Your task to perform on an android device: open app "Indeed Job Search" Image 0: 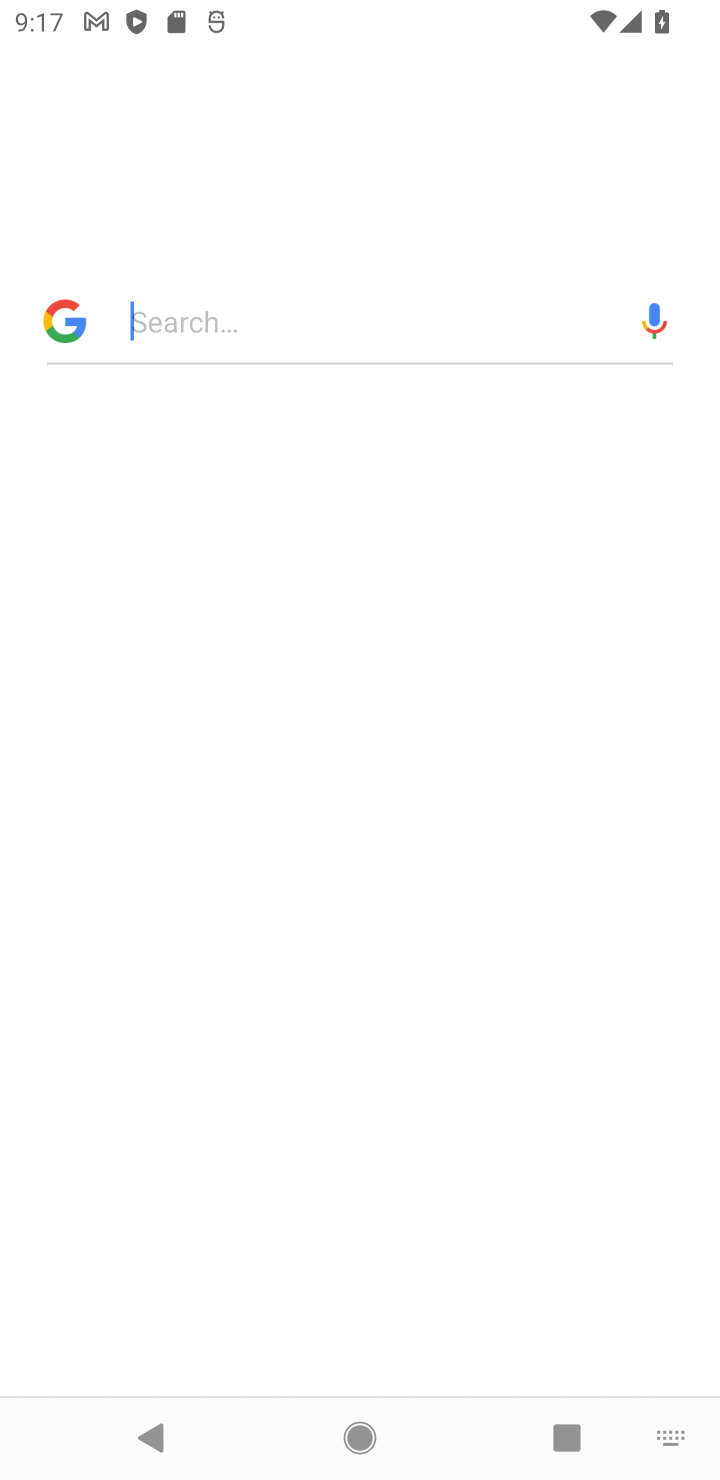
Step 0: press back button
Your task to perform on an android device: open app "Indeed Job Search" Image 1: 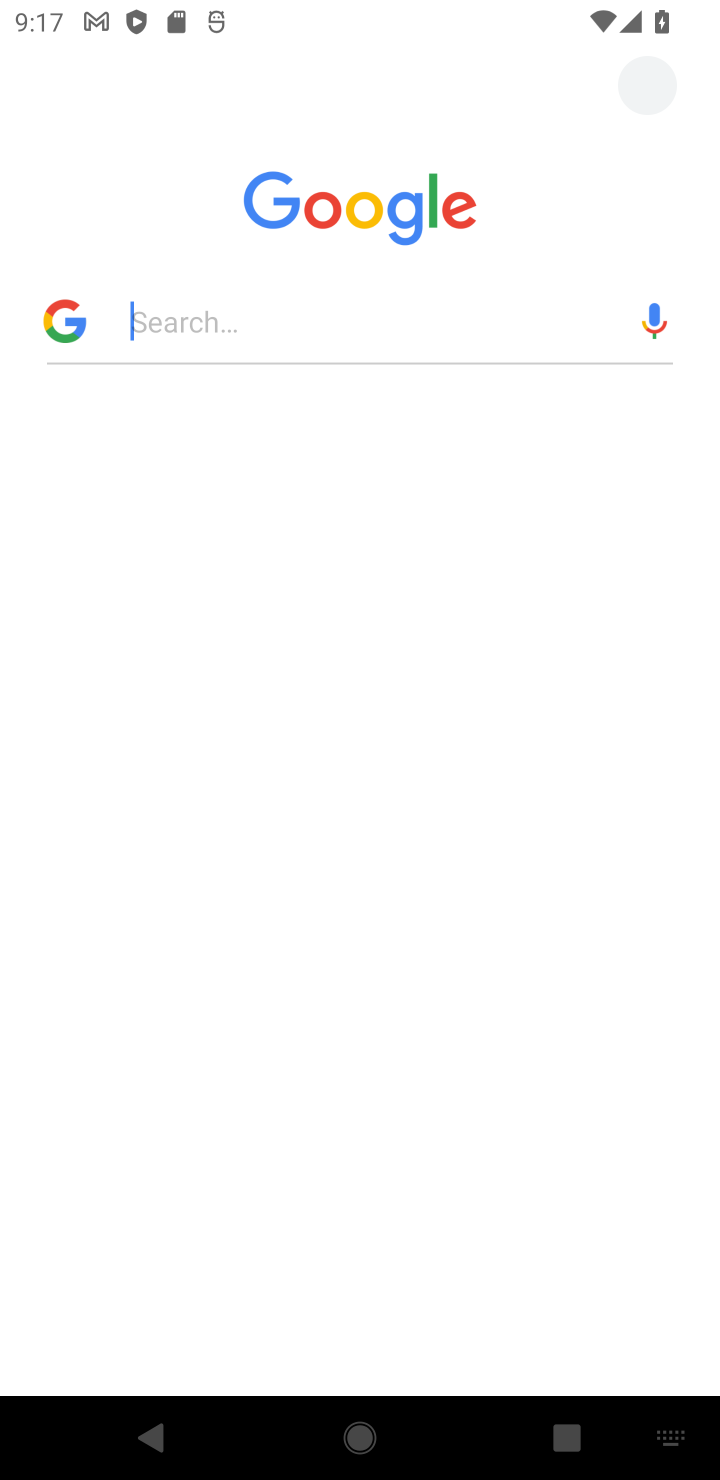
Step 1: press home button
Your task to perform on an android device: open app "Indeed Job Search" Image 2: 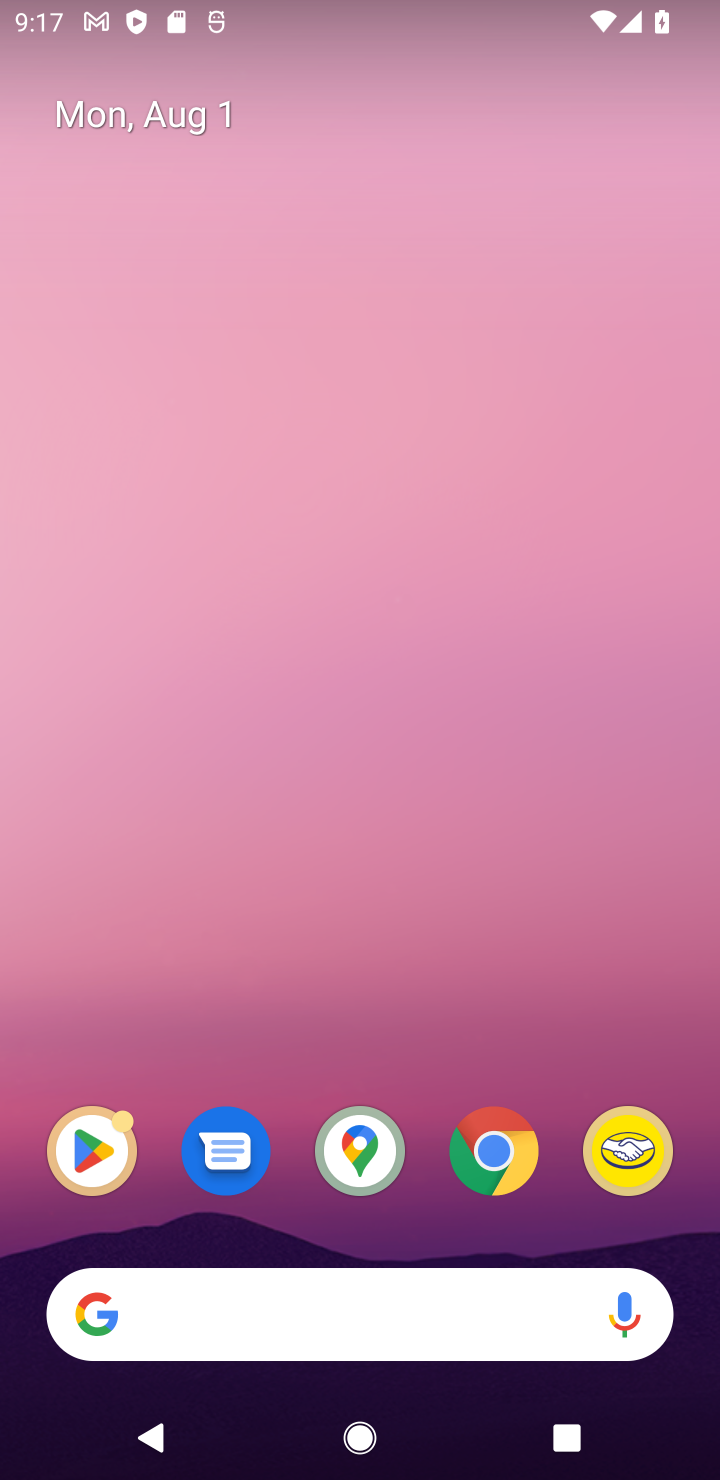
Step 2: drag from (414, 1172) to (256, 559)
Your task to perform on an android device: open app "Indeed Job Search" Image 3: 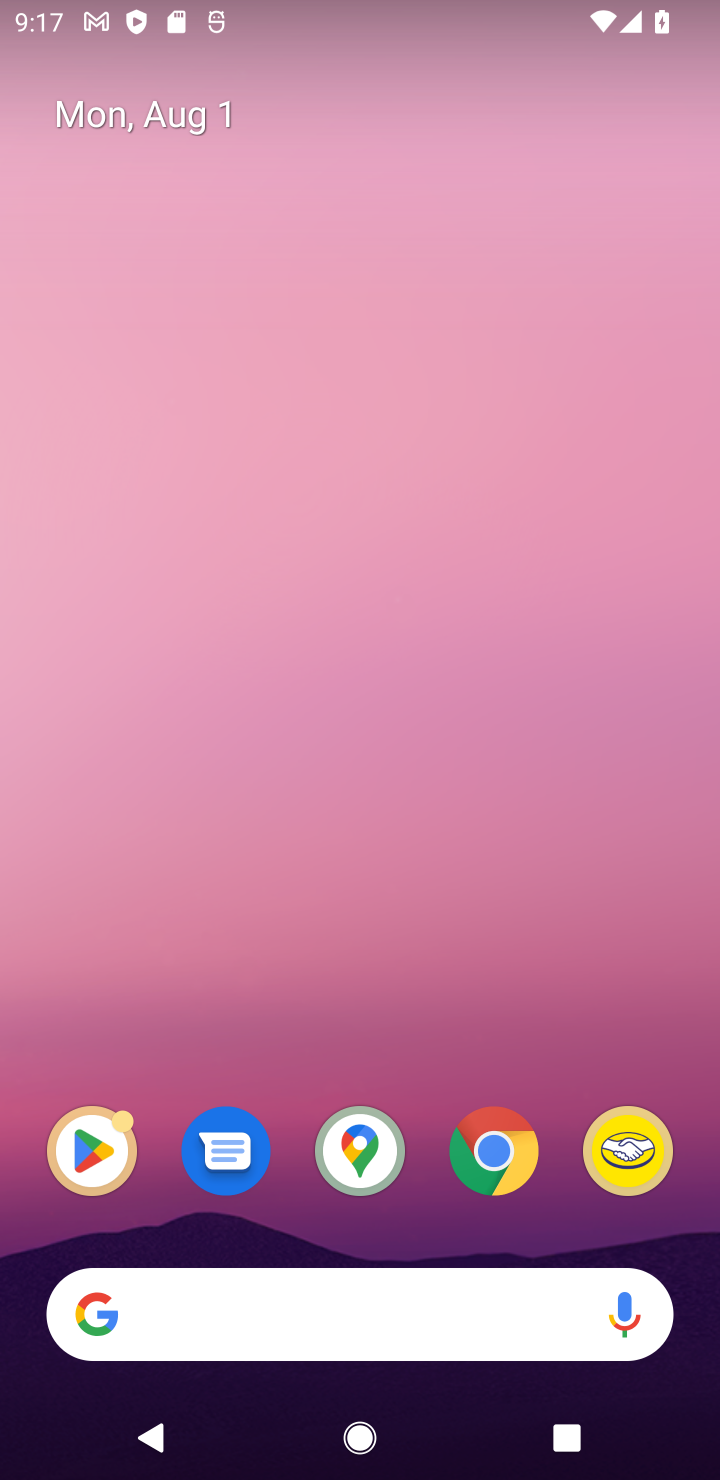
Step 3: click (311, 682)
Your task to perform on an android device: open app "Indeed Job Search" Image 4: 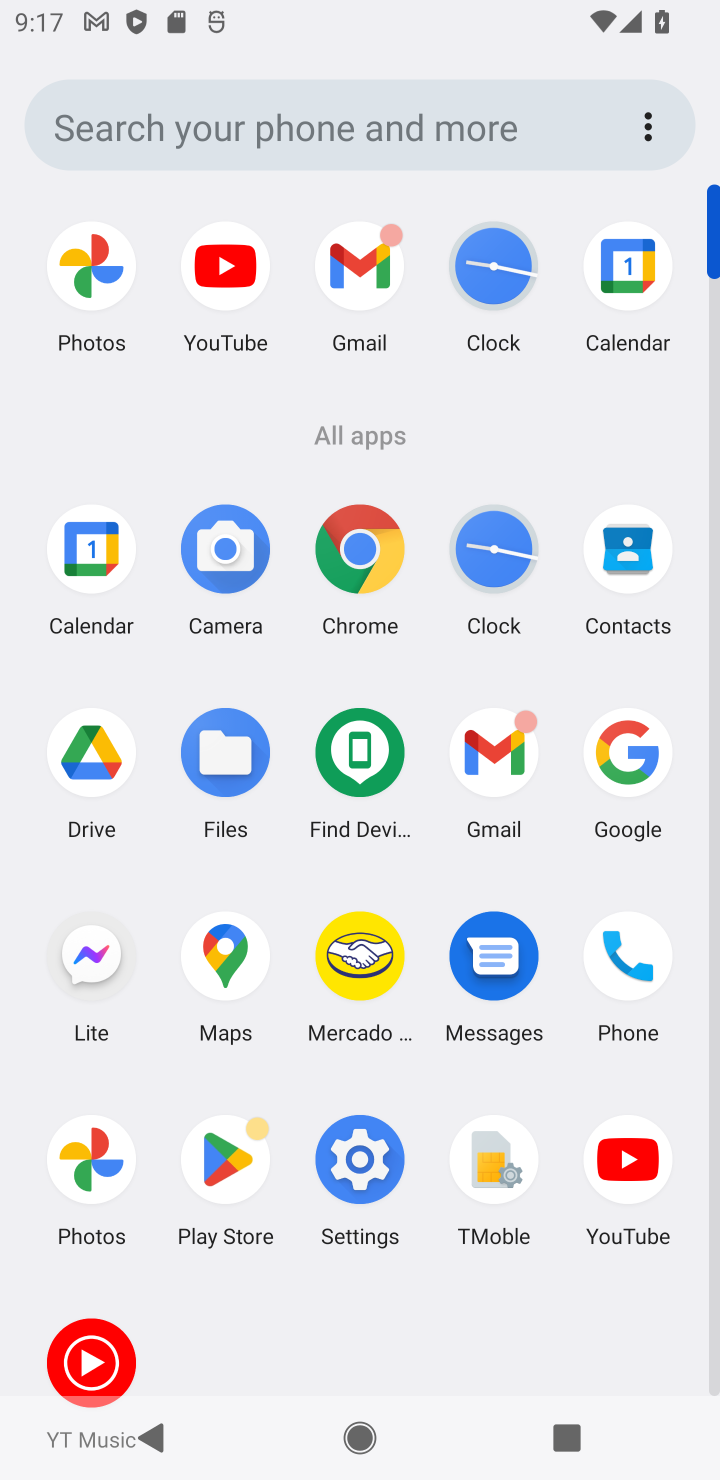
Step 4: drag from (404, 1311) to (319, 527)
Your task to perform on an android device: open app "Indeed Job Search" Image 5: 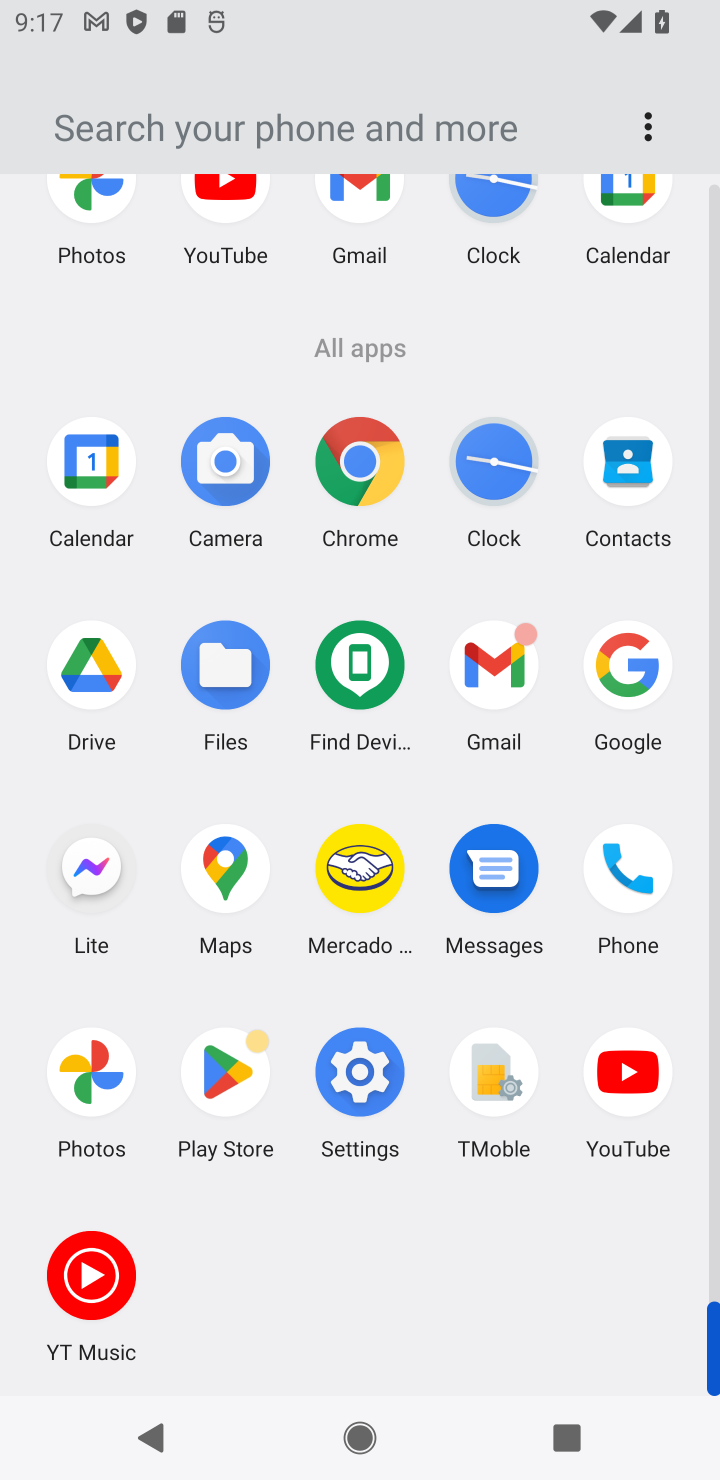
Step 5: click (228, 1081)
Your task to perform on an android device: open app "Indeed Job Search" Image 6: 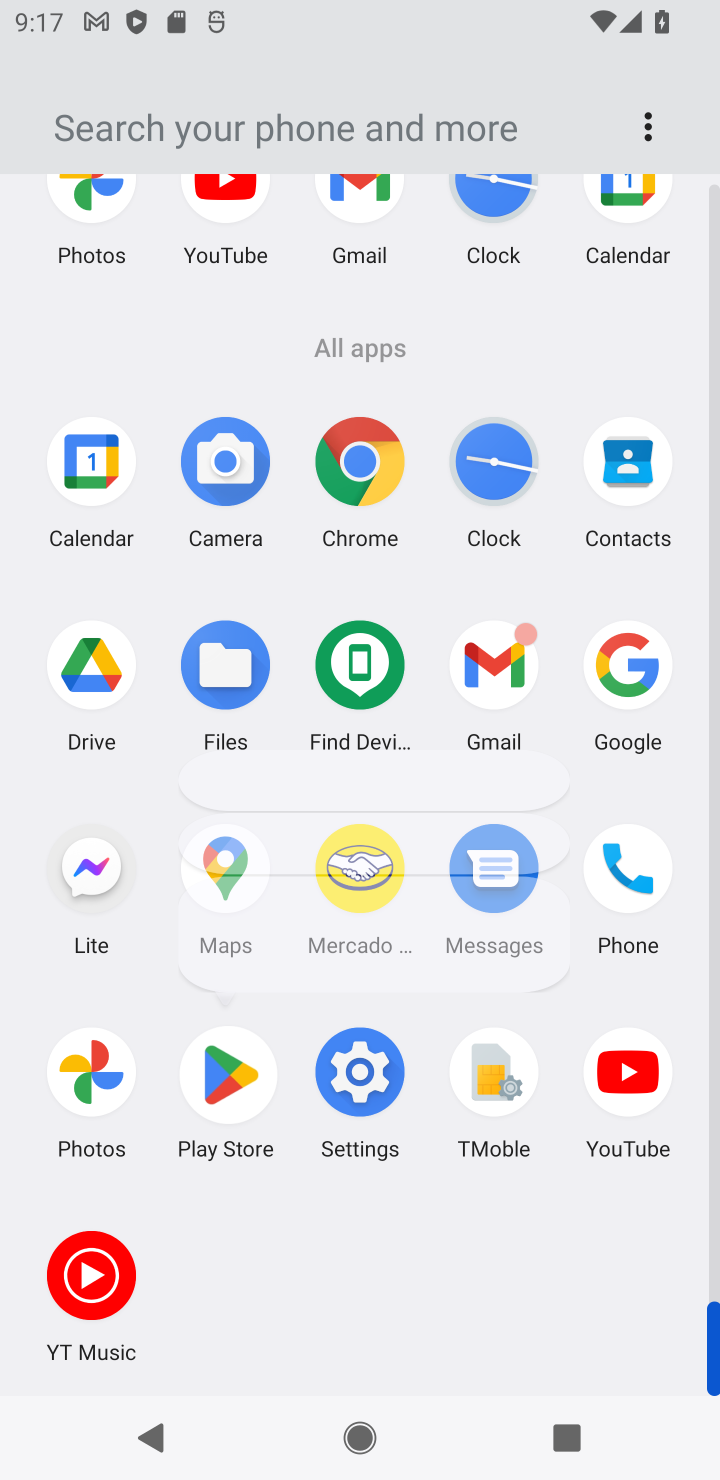
Step 6: click (229, 1081)
Your task to perform on an android device: open app "Indeed Job Search" Image 7: 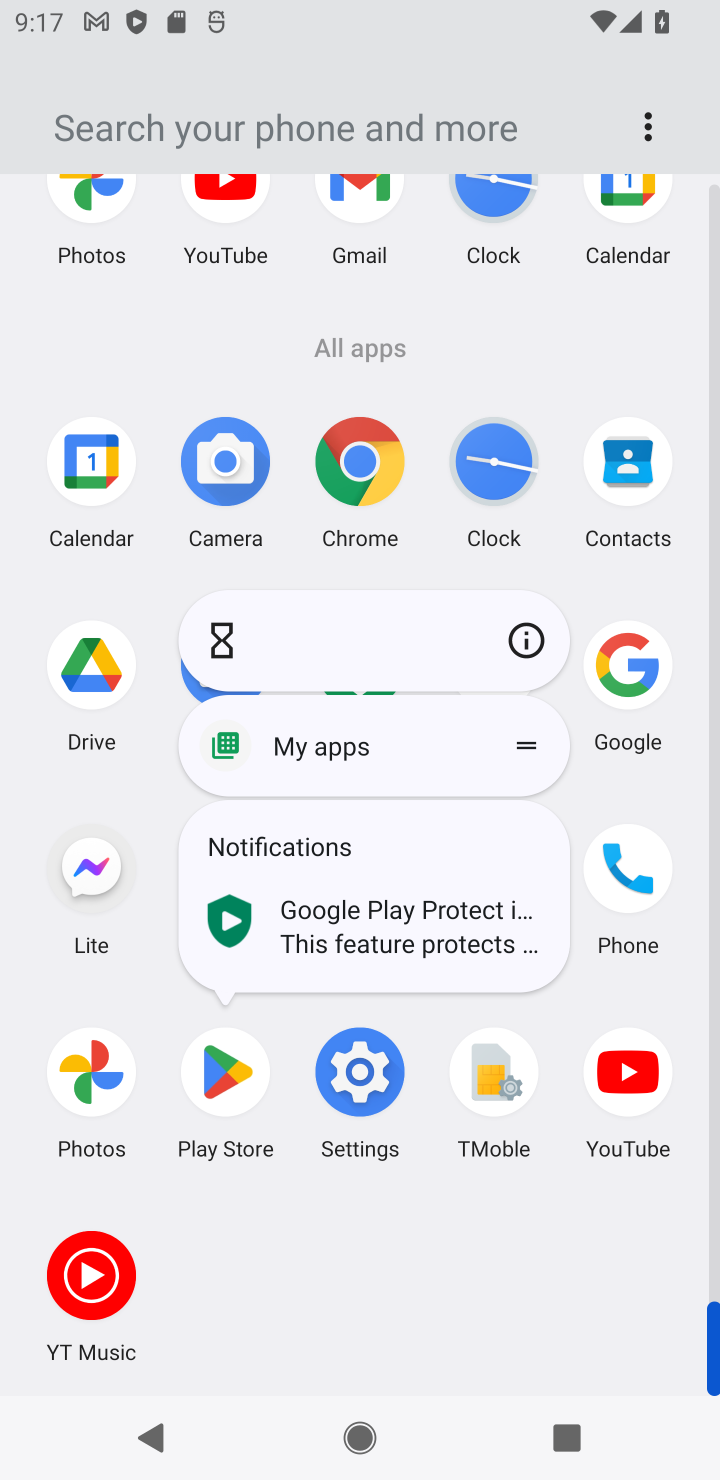
Step 7: click (229, 1081)
Your task to perform on an android device: open app "Indeed Job Search" Image 8: 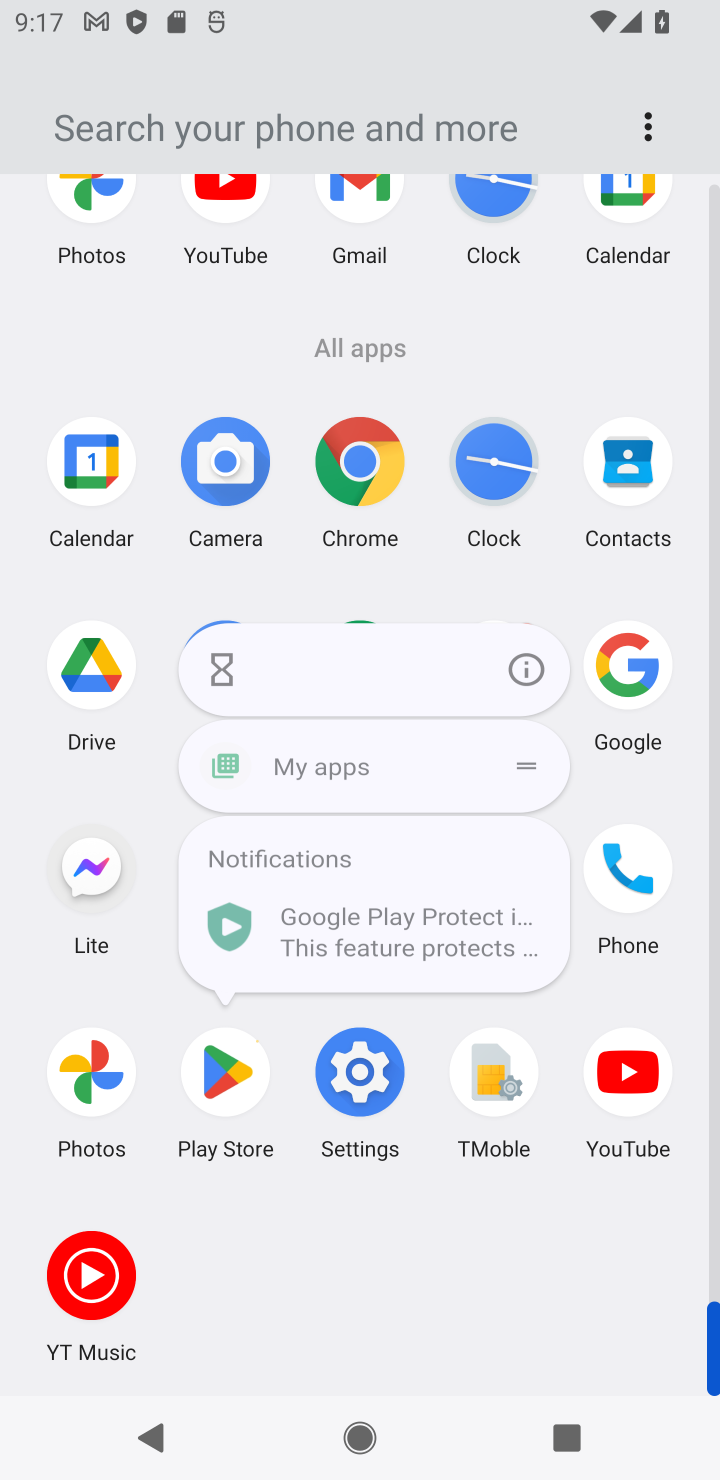
Step 8: click (233, 1094)
Your task to perform on an android device: open app "Indeed Job Search" Image 9: 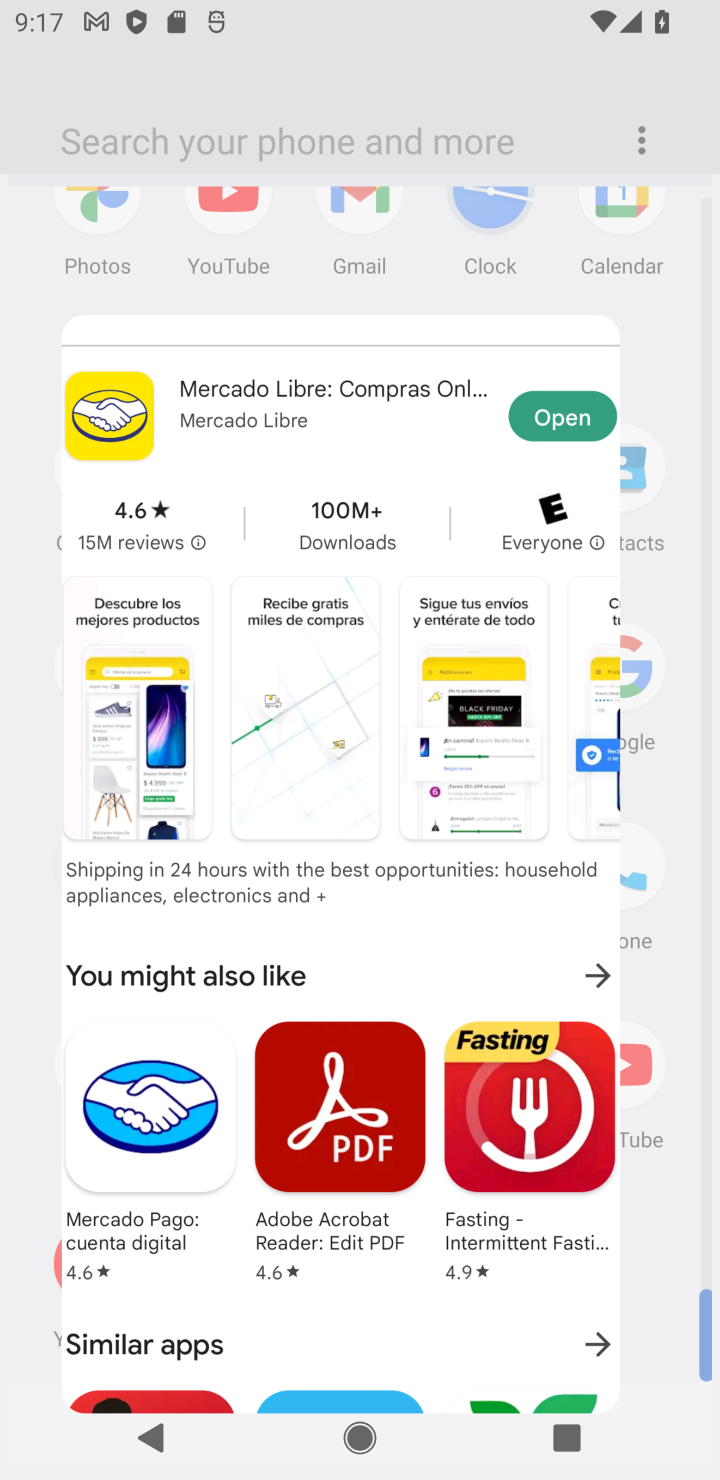
Step 9: click (228, 1099)
Your task to perform on an android device: open app "Indeed Job Search" Image 10: 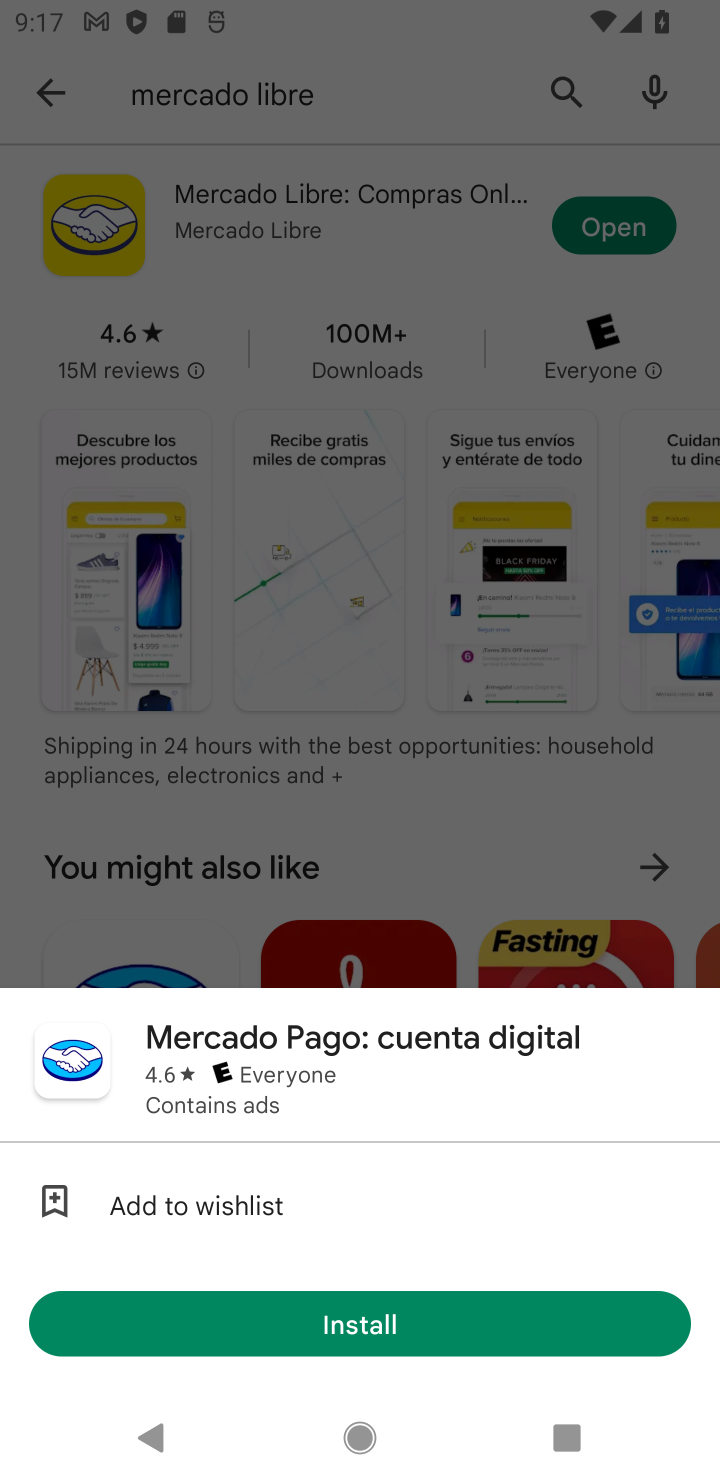
Step 10: click (46, 90)
Your task to perform on an android device: open app "Indeed Job Search" Image 11: 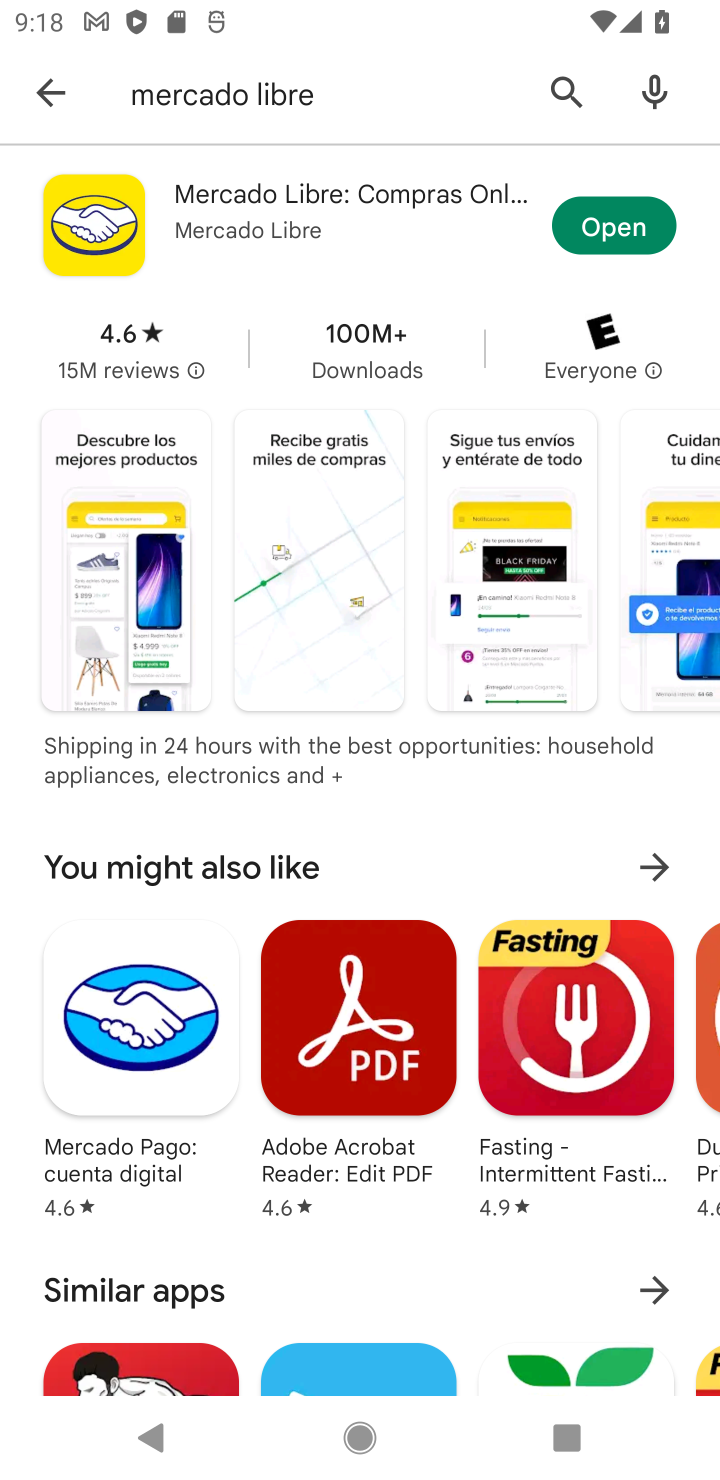
Step 11: click (55, 82)
Your task to perform on an android device: open app "Indeed Job Search" Image 12: 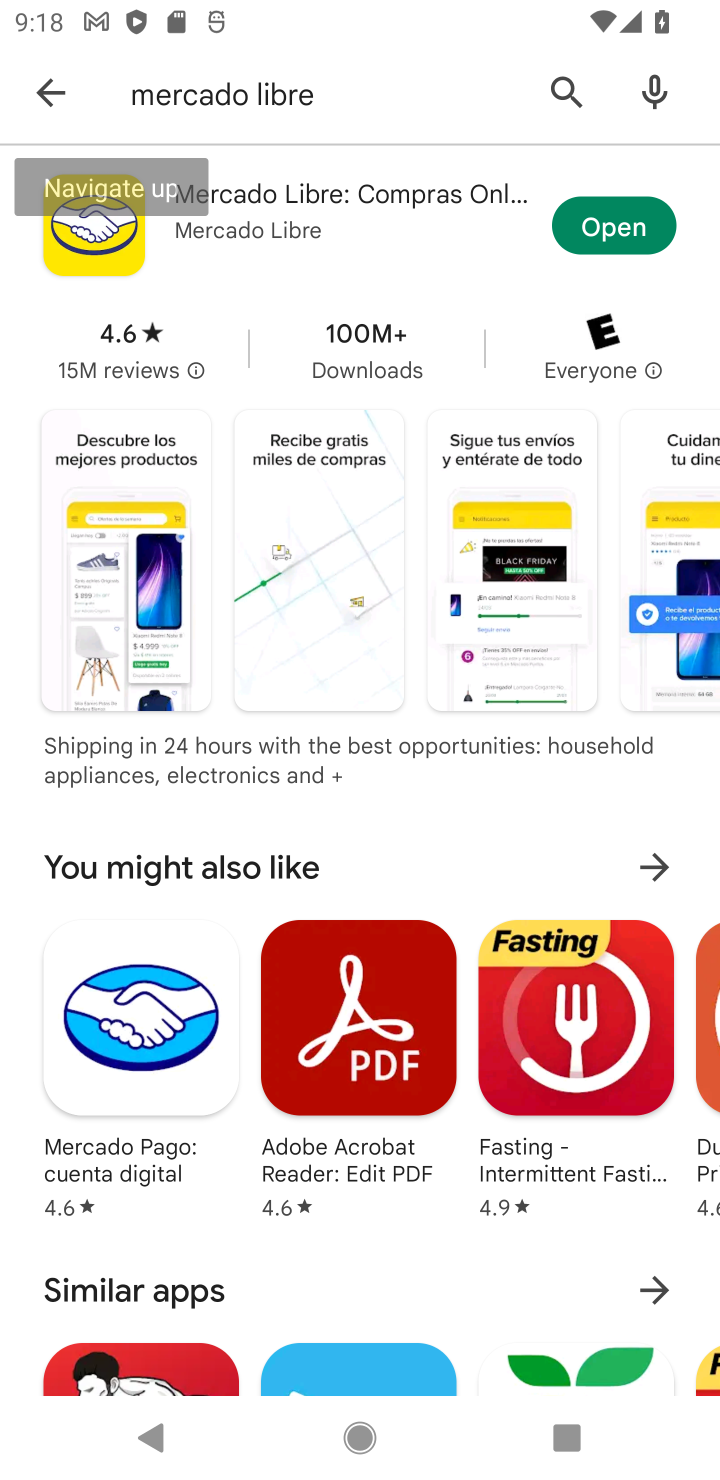
Step 12: click (48, 83)
Your task to perform on an android device: open app "Indeed Job Search" Image 13: 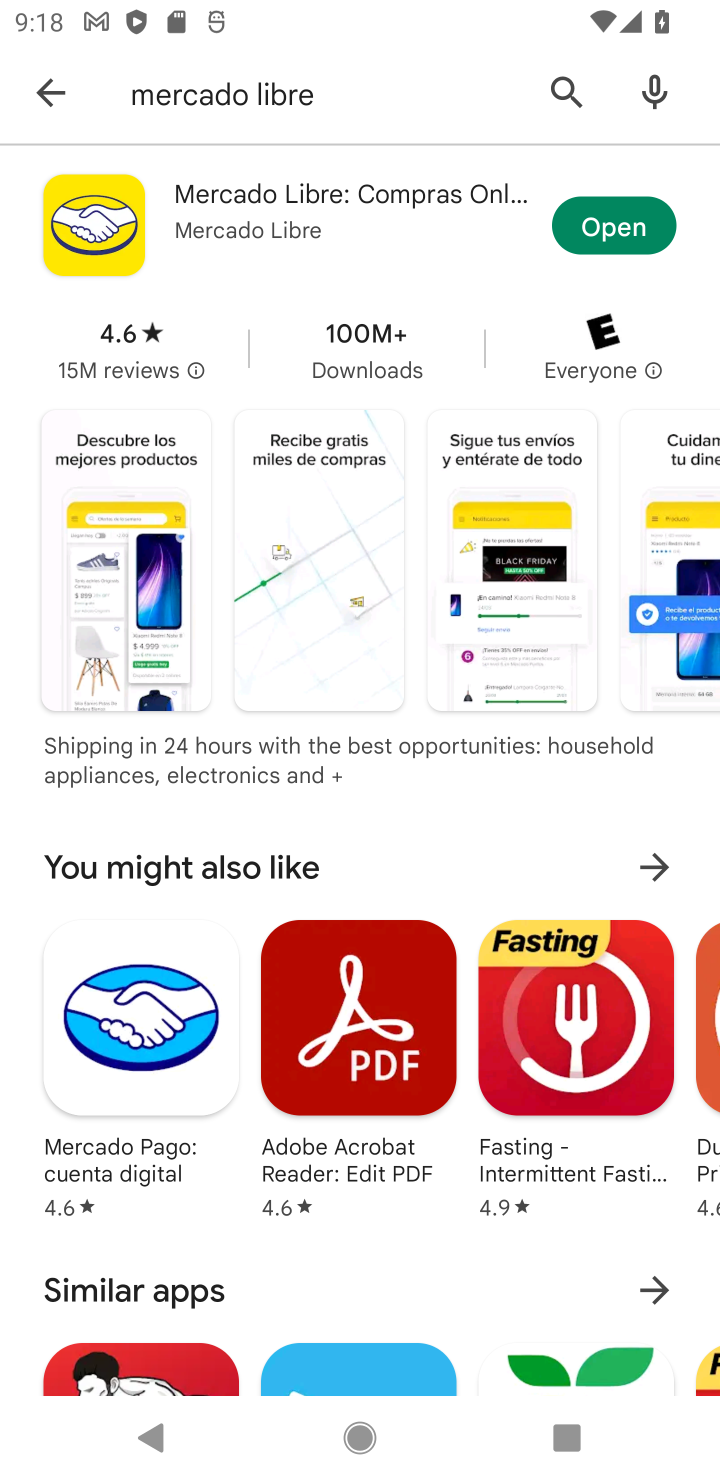
Step 13: click (52, 89)
Your task to perform on an android device: open app "Indeed Job Search" Image 14: 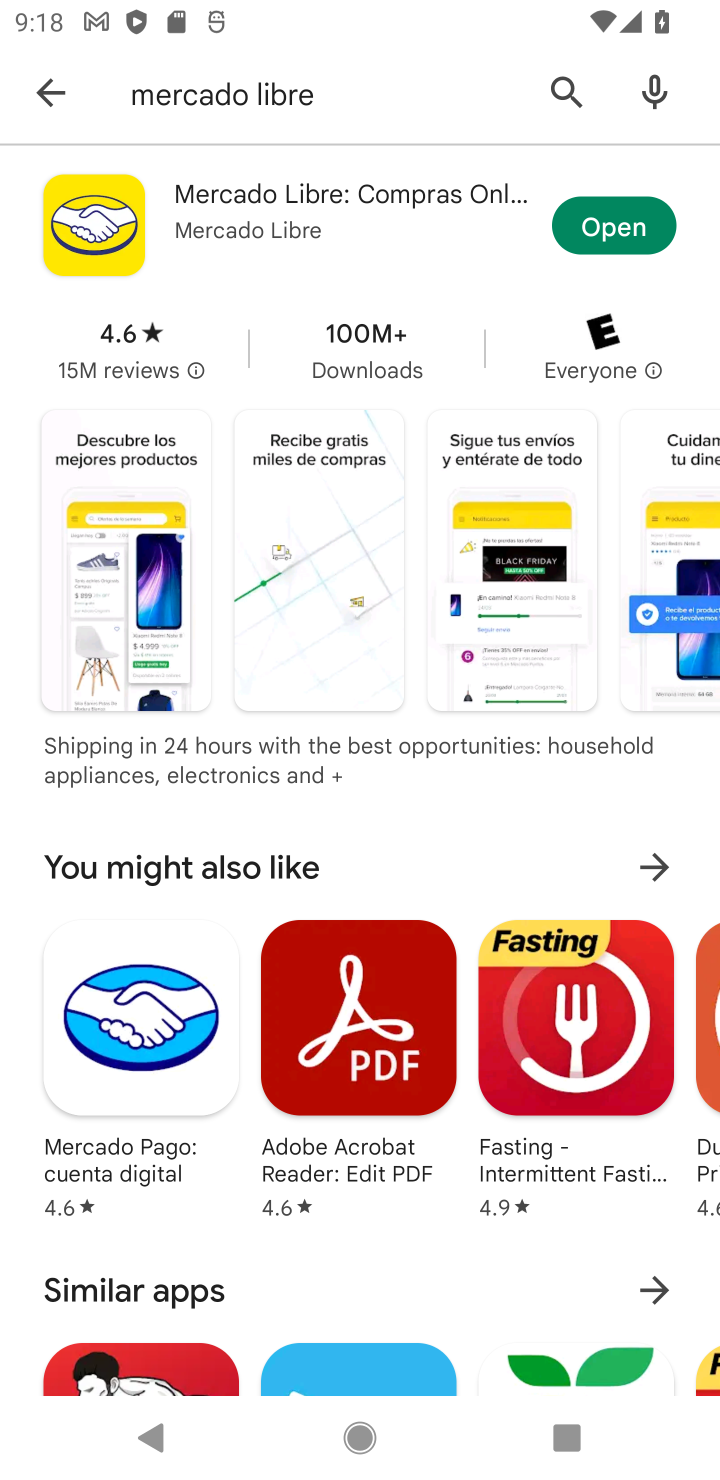
Step 14: click (588, 225)
Your task to perform on an android device: open app "Indeed Job Search" Image 15: 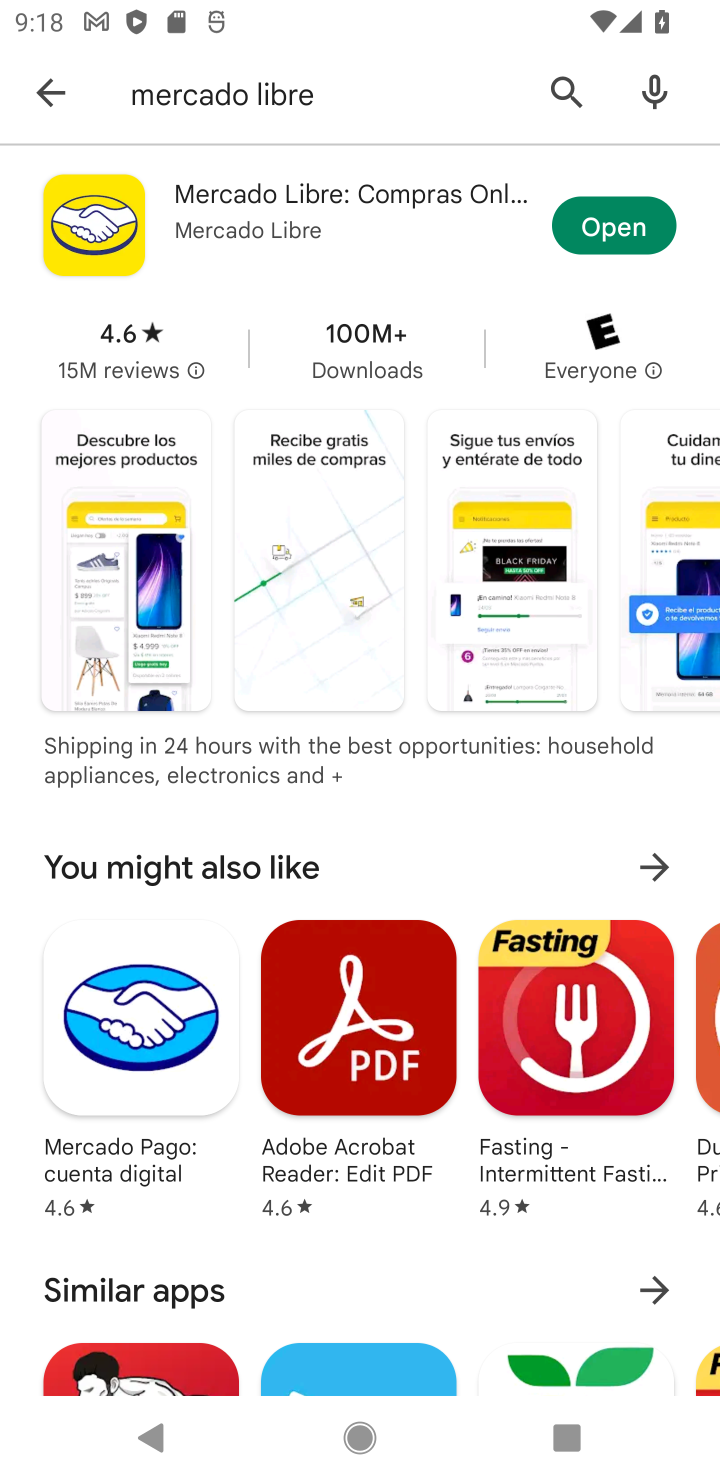
Step 15: click (595, 201)
Your task to perform on an android device: open app "Indeed Job Search" Image 16: 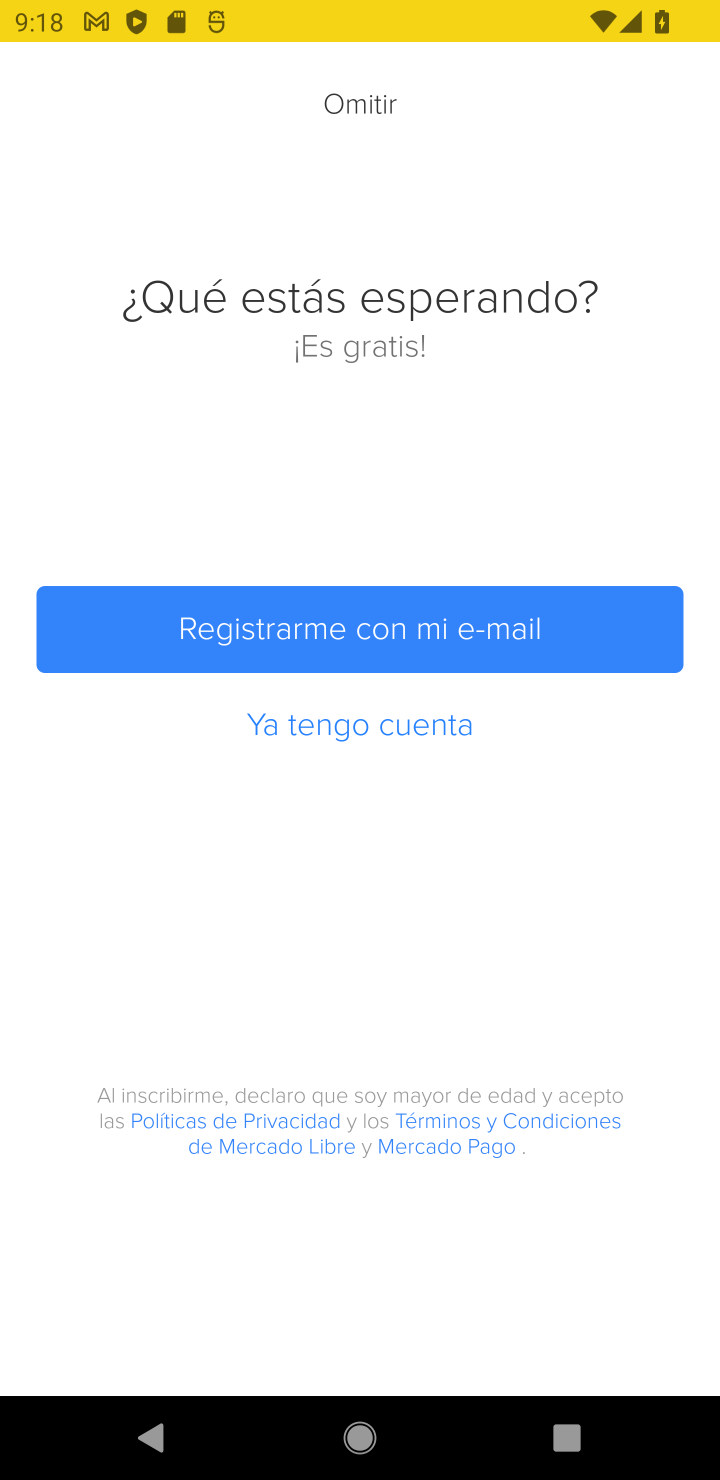
Step 16: task complete